Your task to perform on an android device: Open wifi settings Image 0: 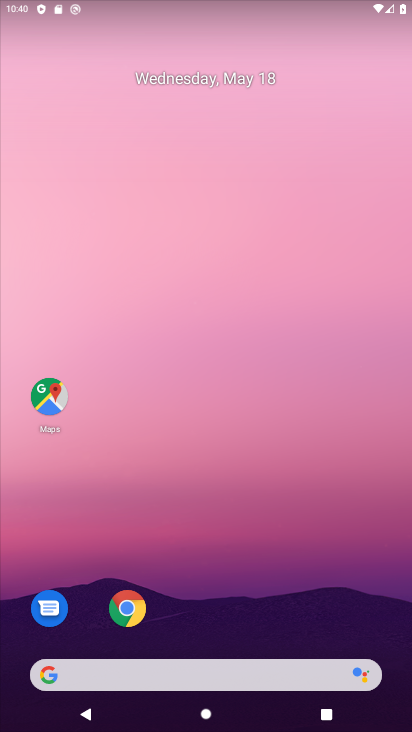
Step 0: press home button
Your task to perform on an android device: Open wifi settings Image 1: 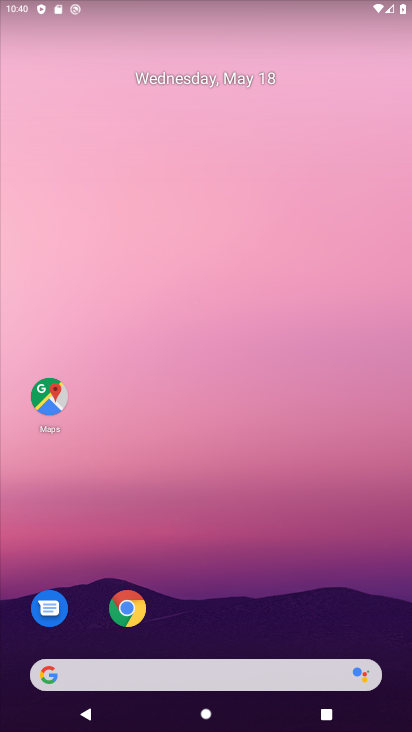
Step 1: drag from (158, 89) to (171, 280)
Your task to perform on an android device: Open wifi settings Image 2: 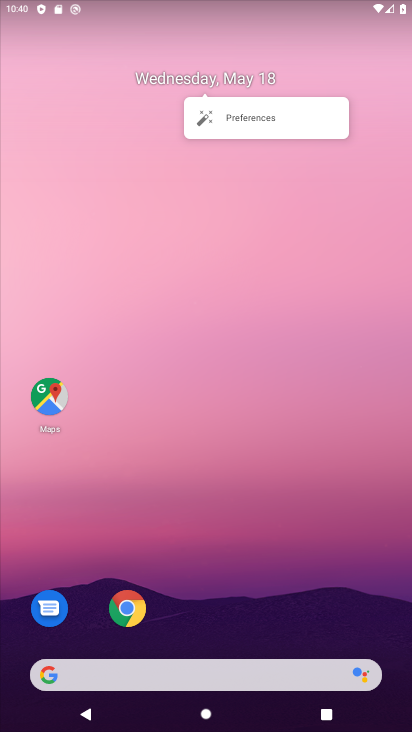
Step 2: drag from (202, 2) to (187, 221)
Your task to perform on an android device: Open wifi settings Image 3: 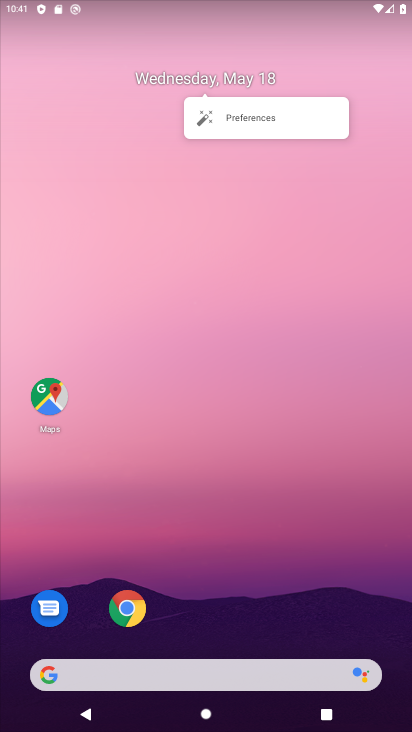
Step 3: drag from (224, 1) to (166, 710)
Your task to perform on an android device: Open wifi settings Image 4: 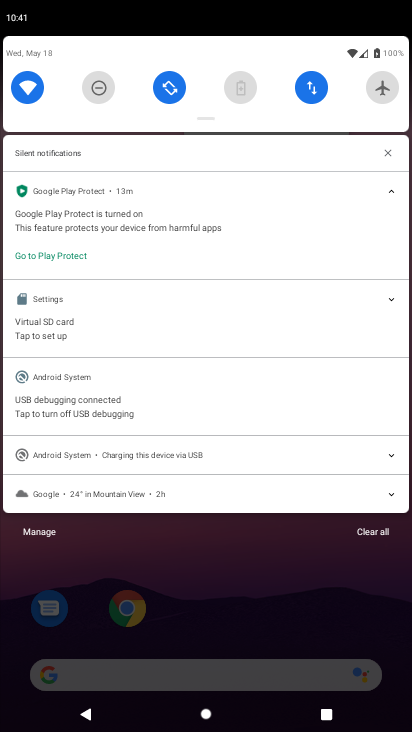
Step 4: click (21, 87)
Your task to perform on an android device: Open wifi settings Image 5: 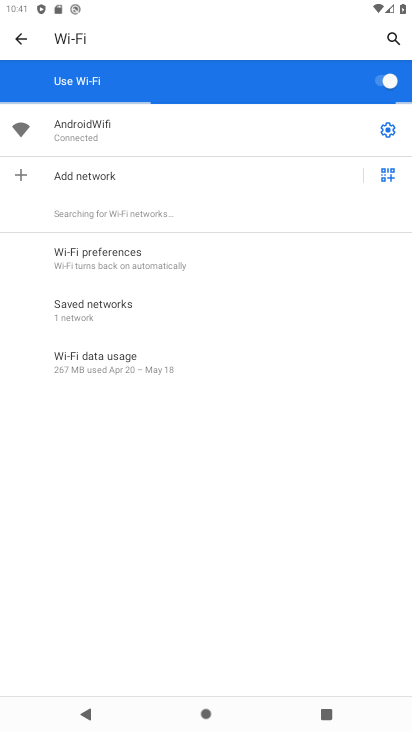
Step 5: task complete